Your task to perform on an android device: check the backup settings in the google photos Image 0: 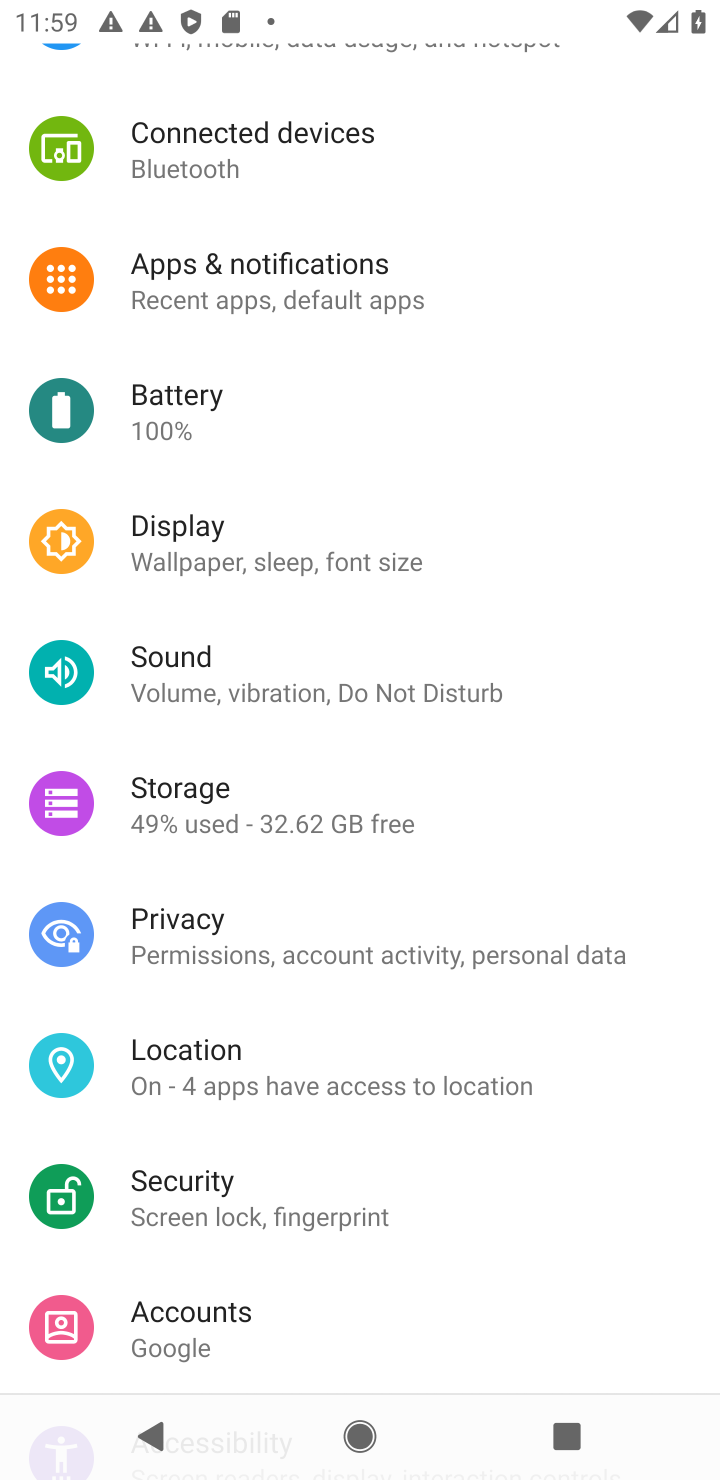
Step 0: task complete